Your task to perform on an android device: show emergency info Image 0: 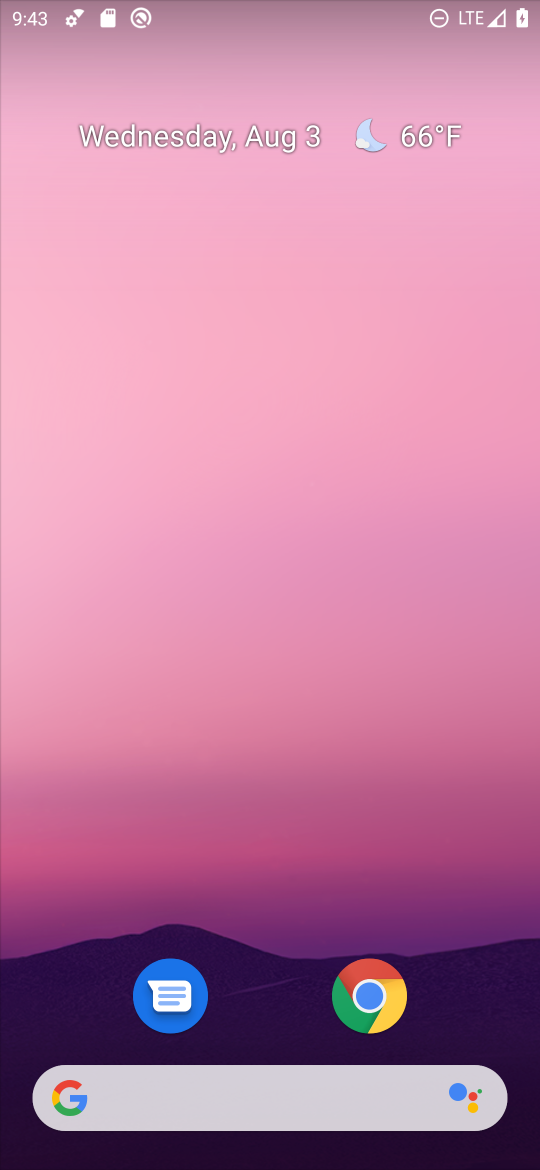
Step 0: drag from (318, 751) to (369, 0)
Your task to perform on an android device: show emergency info Image 1: 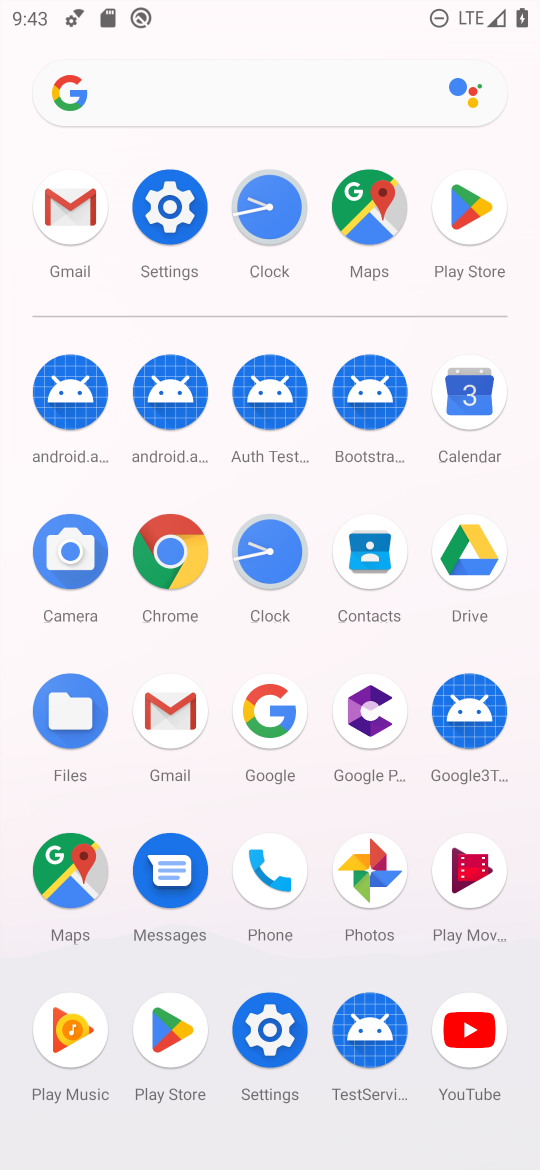
Step 1: click (179, 216)
Your task to perform on an android device: show emergency info Image 2: 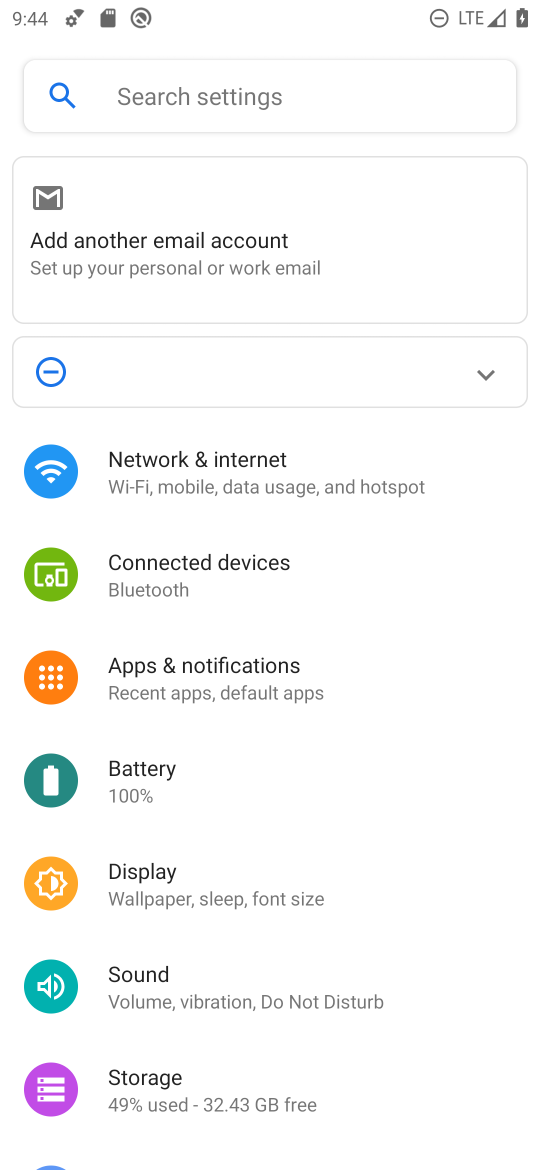
Step 2: drag from (251, 963) to (285, 0)
Your task to perform on an android device: show emergency info Image 3: 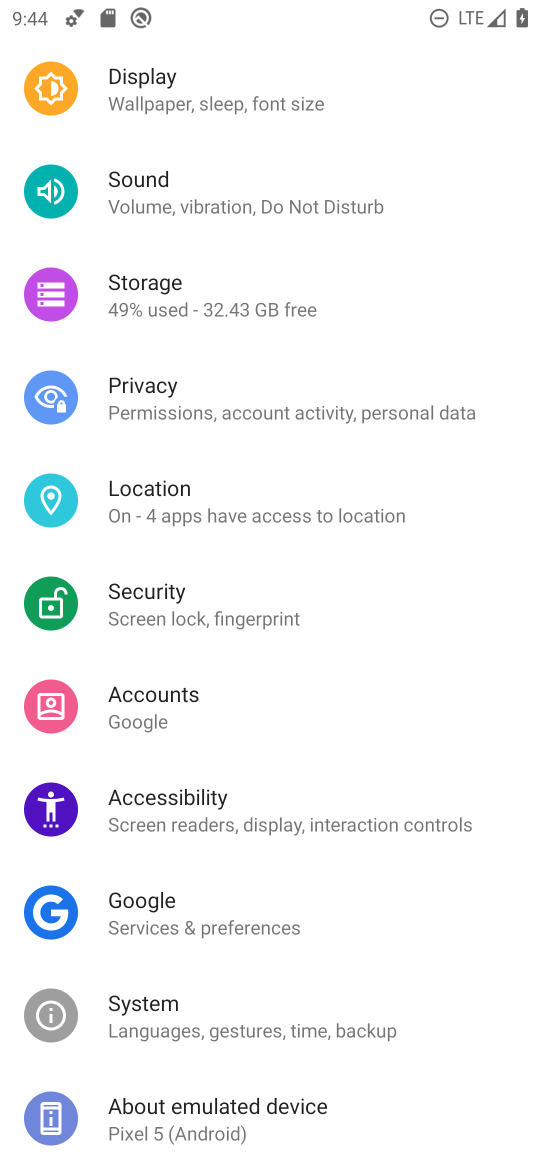
Step 3: click (228, 1105)
Your task to perform on an android device: show emergency info Image 4: 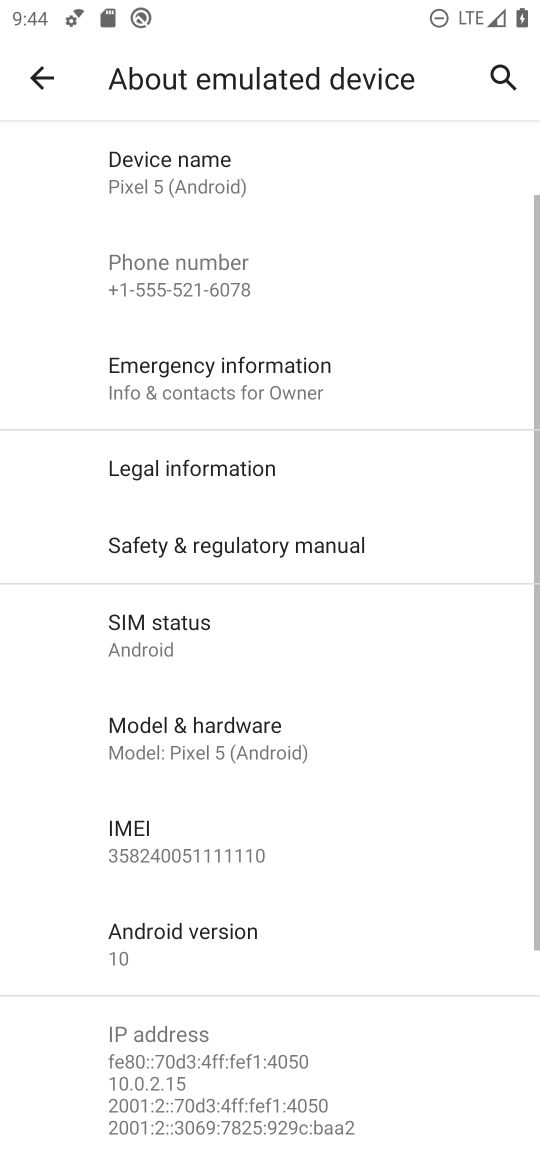
Step 4: click (280, 380)
Your task to perform on an android device: show emergency info Image 5: 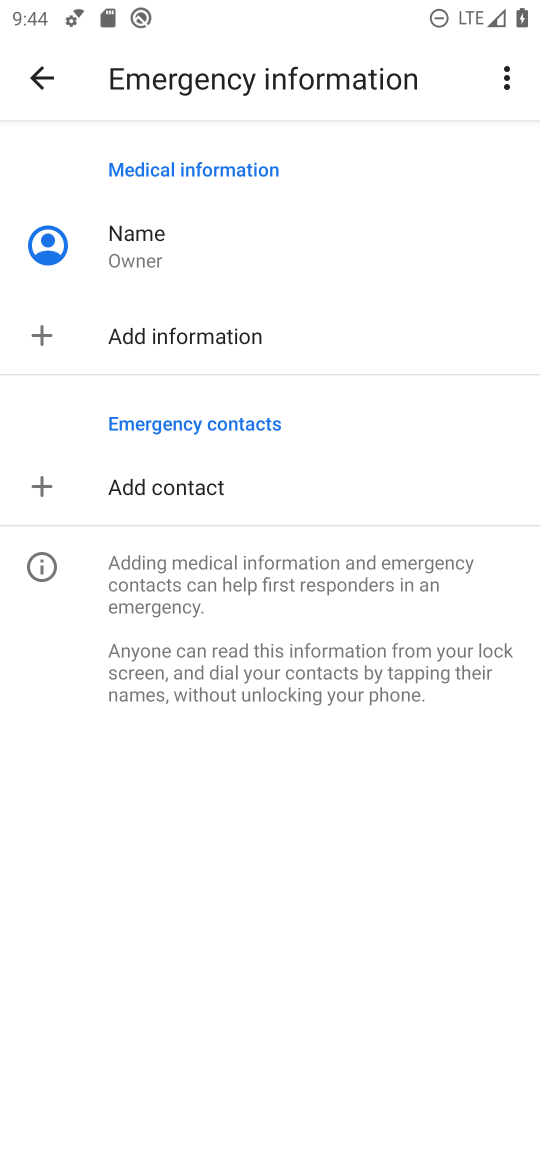
Step 5: task complete